Your task to perform on an android device: turn on the 24-hour format for clock Image 0: 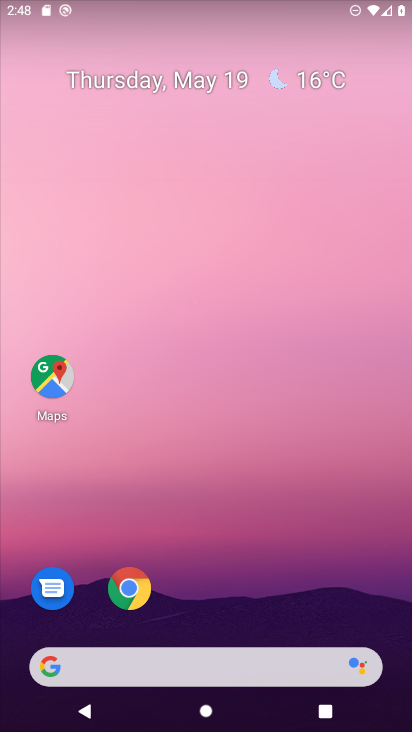
Step 0: drag from (313, 626) to (319, 40)
Your task to perform on an android device: turn on the 24-hour format for clock Image 1: 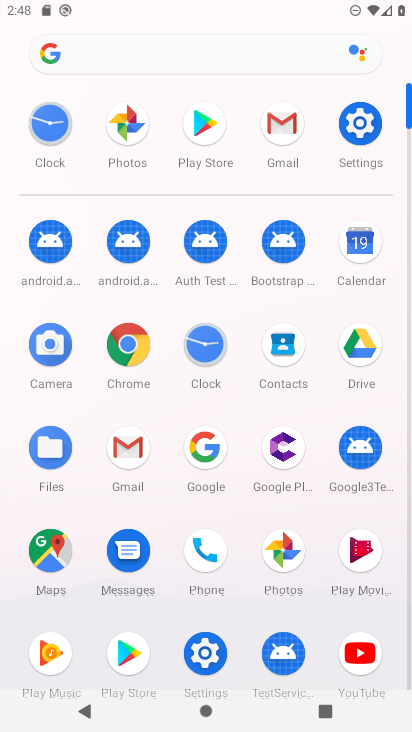
Step 1: click (44, 131)
Your task to perform on an android device: turn on the 24-hour format for clock Image 2: 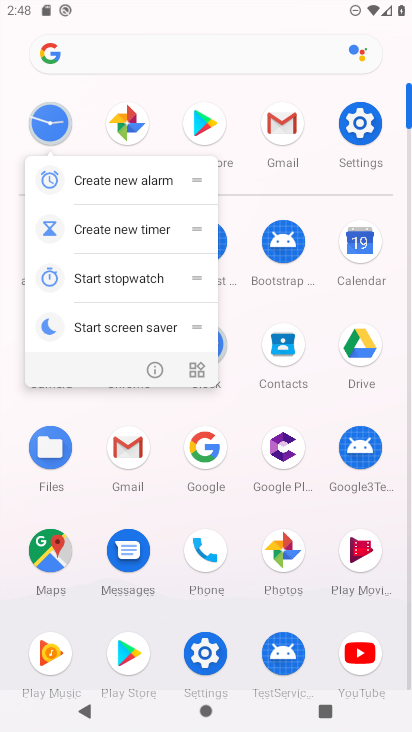
Step 2: click (44, 131)
Your task to perform on an android device: turn on the 24-hour format for clock Image 3: 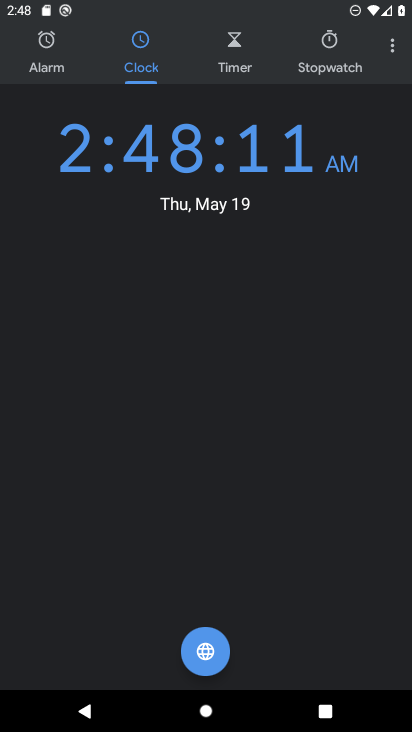
Step 3: click (395, 51)
Your task to perform on an android device: turn on the 24-hour format for clock Image 4: 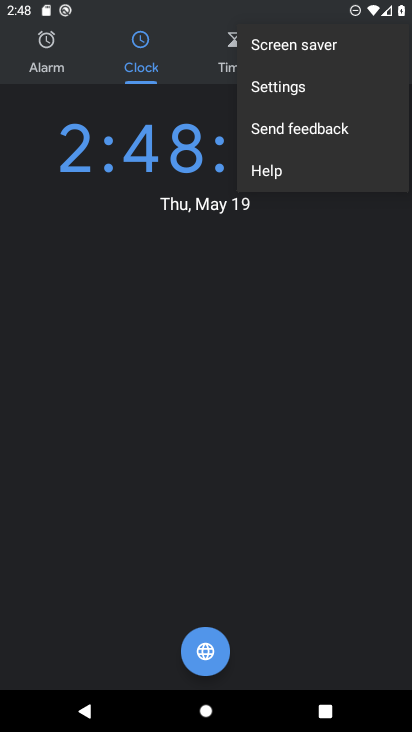
Step 4: click (294, 92)
Your task to perform on an android device: turn on the 24-hour format for clock Image 5: 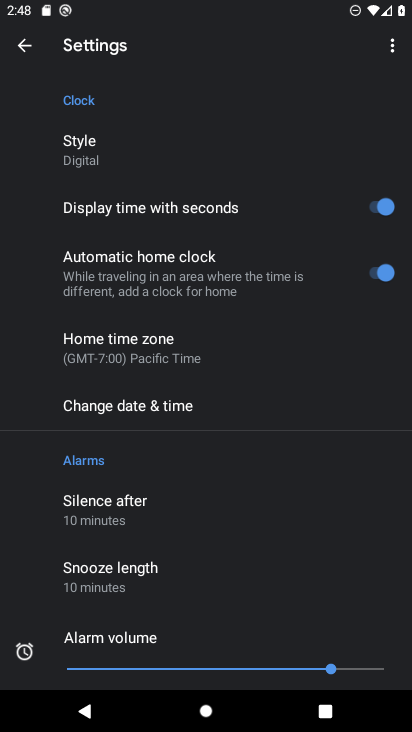
Step 5: click (122, 413)
Your task to perform on an android device: turn on the 24-hour format for clock Image 6: 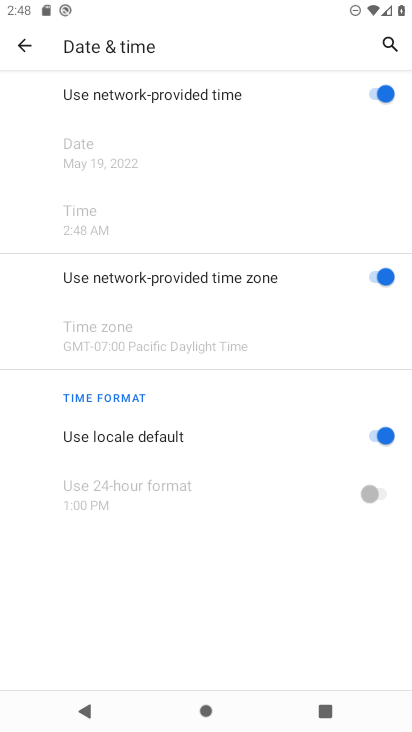
Step 6: click (386, 429)
Your task to perform on an android device: turn on the 24-hour format for clock Image 7: 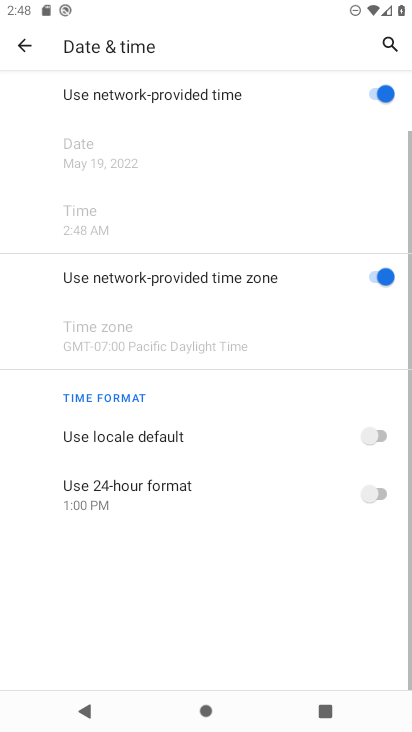
Step 7: click (385, 500)
Your task to perform on an android device: turn on the 24-hour format for clock Image 8: 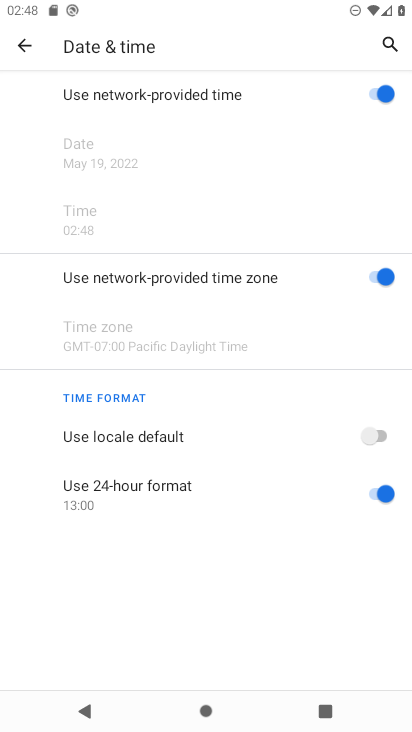
Step 8: task complete